Your task to perform on an android device: delete location history Image 0: 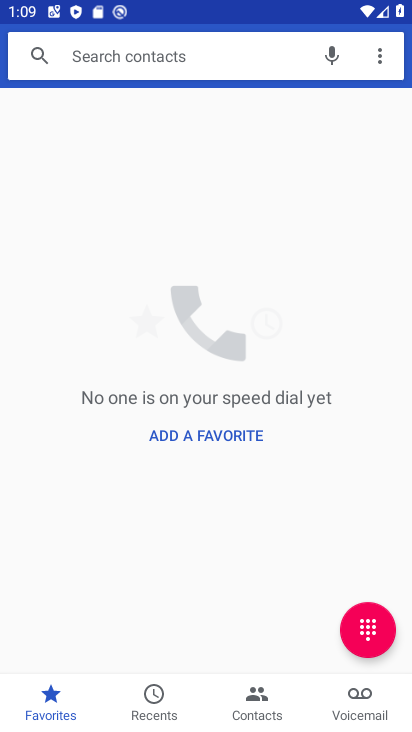
Step 0: press home button
Your task to perform on an android device: delete location history Image 1: 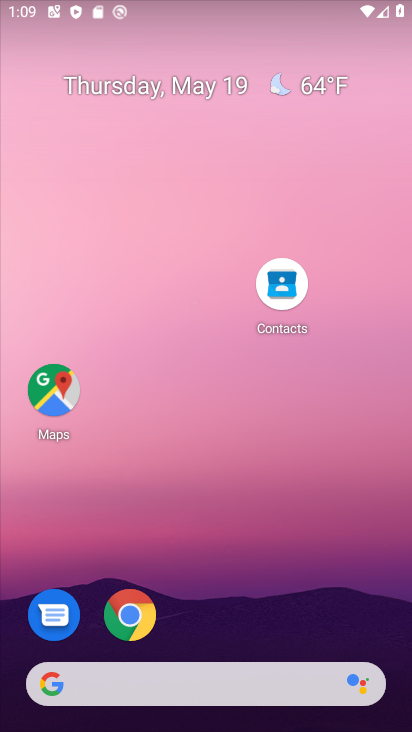
Step 1: drag from (224, 462) to (257, 158)
Your task to perform on an android device: delete location history Image 2: 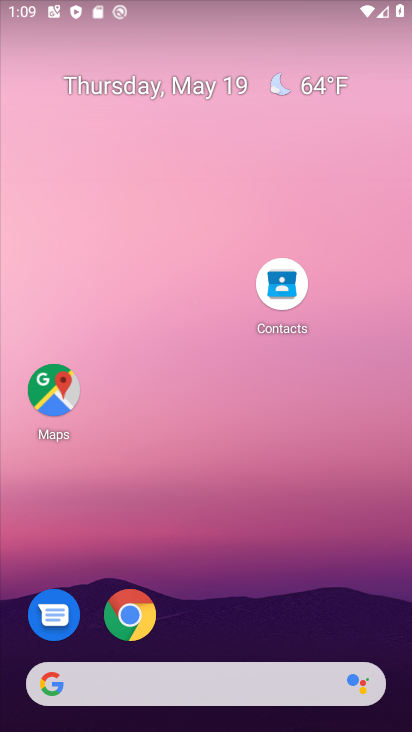
Step 2: drag from (165, 547) to (207, 29)
Your task to perform on an android device: delete location history Image 3: 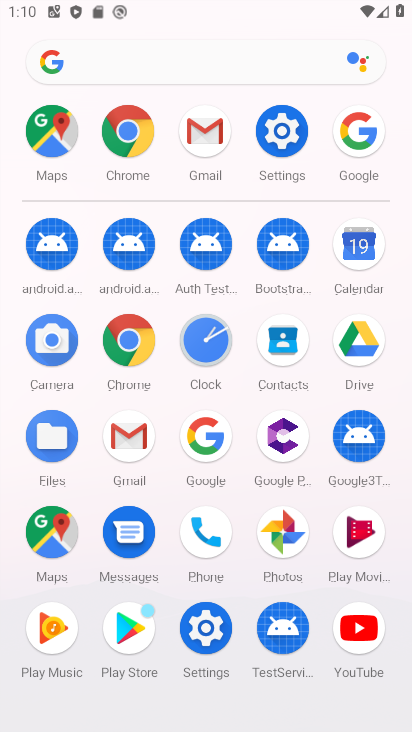
Step 3: click (275, 151)
Your task to perform on an android device: delete location history Image 4: 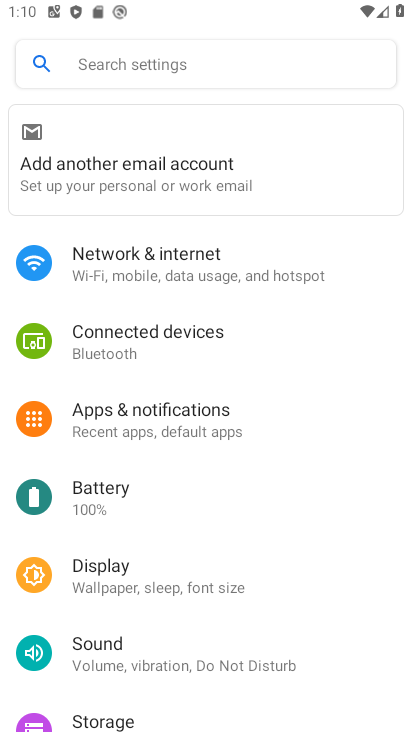
Step 4: drag from (248, 515) to (256, 105)
Your task to perform on an android device: delete location history Image 5: 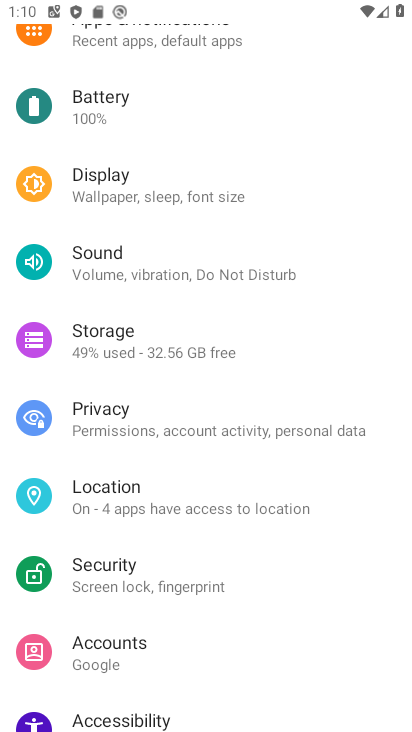
Step 5: click (182, 484)
Your task to perform on an android device: delete location history Image 6: 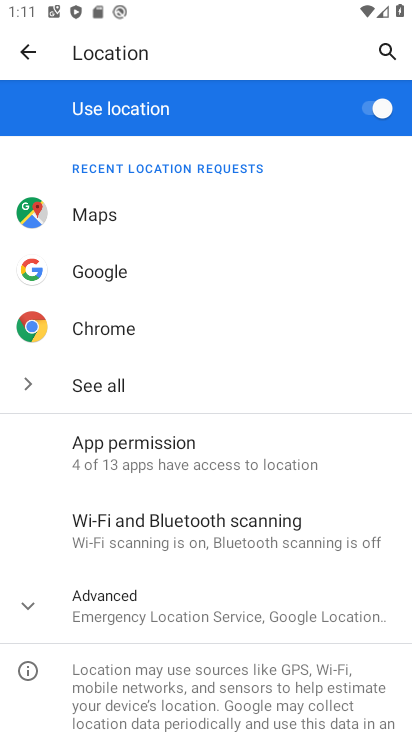
Step 6: click (231, 613)
Your task to perform on an android device: delete location history Image 7: 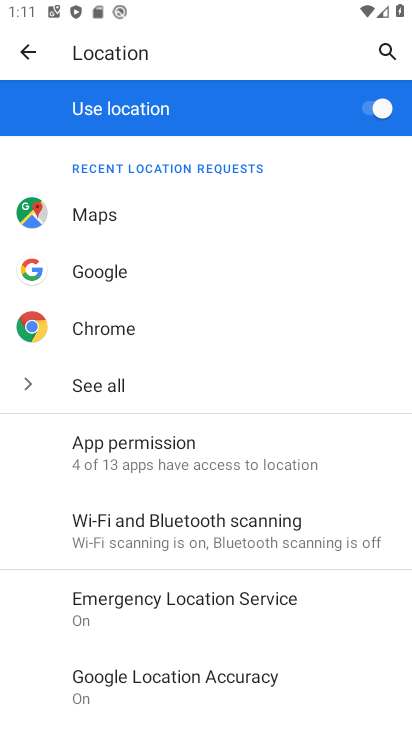
Step 7: drag from (259, 568) to (264, 357)
Your task to perform on an android device: delete location history Image 8: 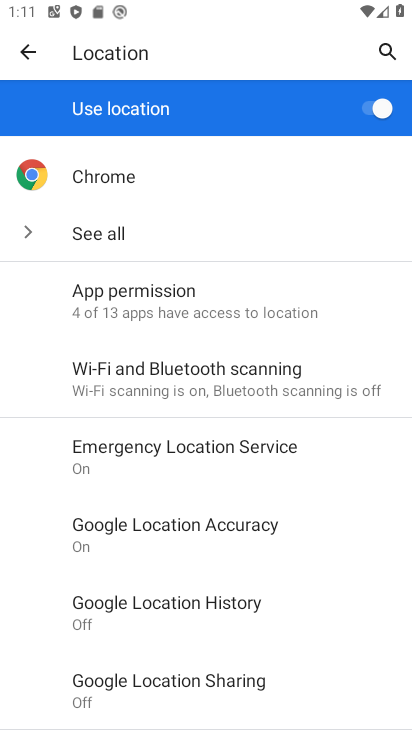
Step 8: click (235, 607)
Your task to perform on an android device: delete location history Image 9: 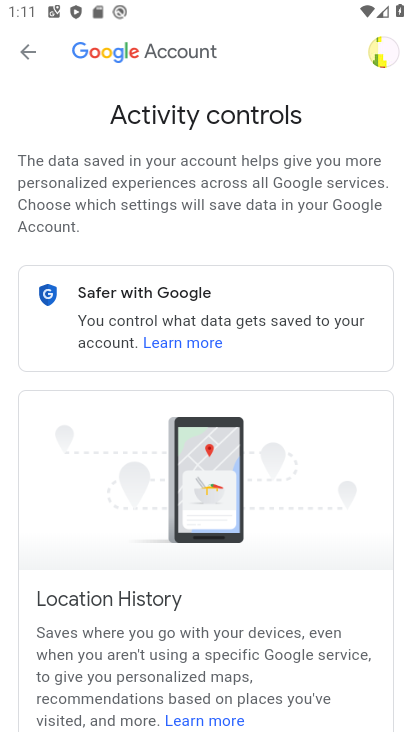
Step 9: drag from (258, 528) to (86, 230)
Your task to perform on an android device: delete location history Image 10: 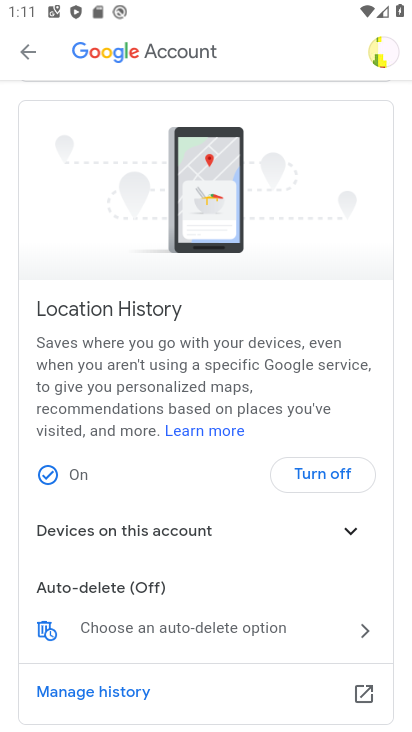
Step 10: drag from (156, 552) to (179, 413)
Your task to perform on an android device: delete location history Image 11: 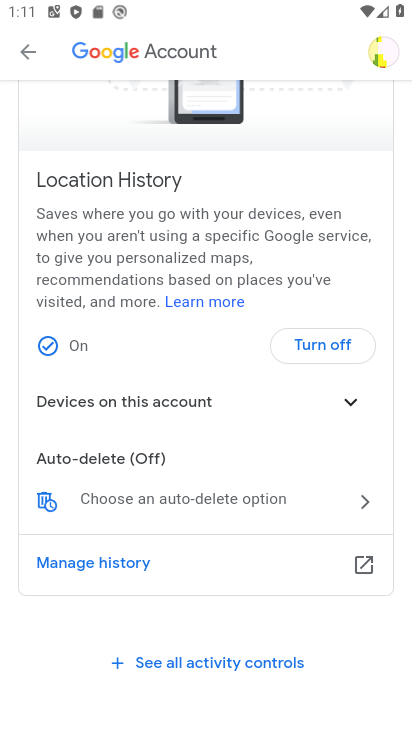
Step 11: click (207, 567)
Your task to perform on an android device: delete location history Image 12: 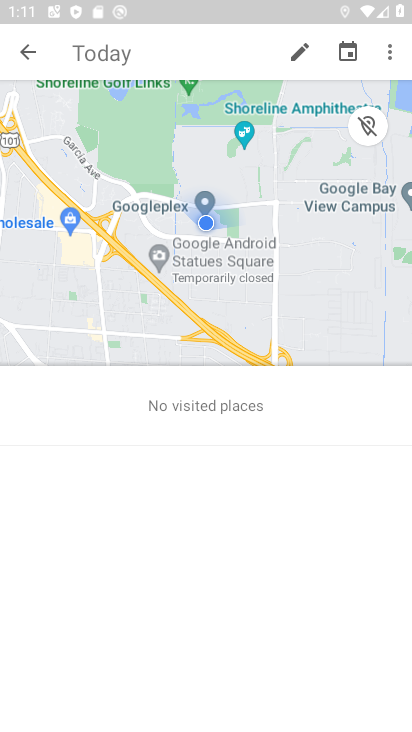
Step 12: task complete